Your task to perform on an android device: What's the weather today? Image 0: 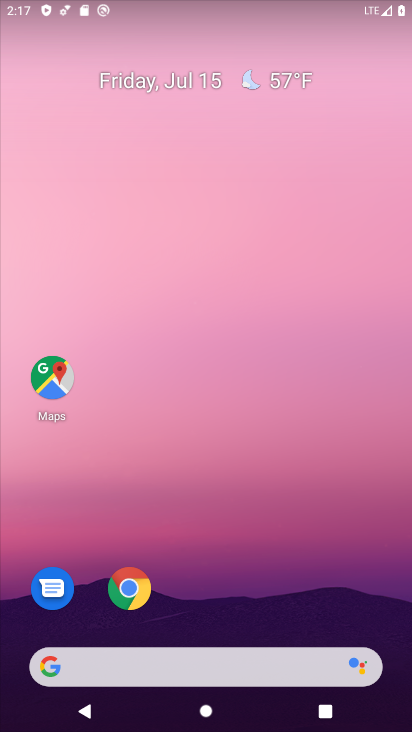
Step 0: click (300, 82)
Your task to perform on an android device: What's the weather today? Image 1: 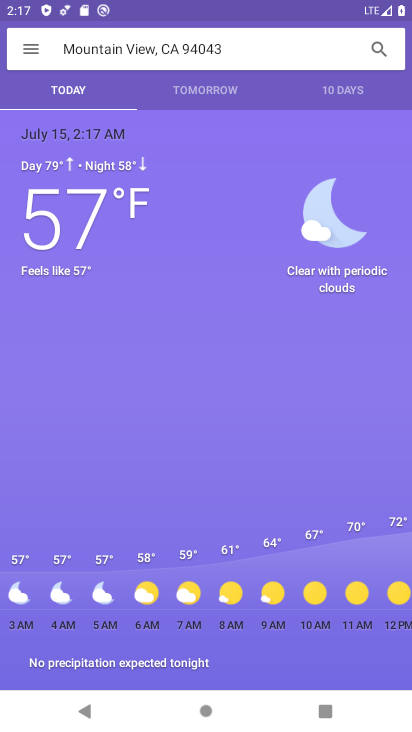
Step 1: task complete